Your task to perform on an android device: Open my contact list Image 0: 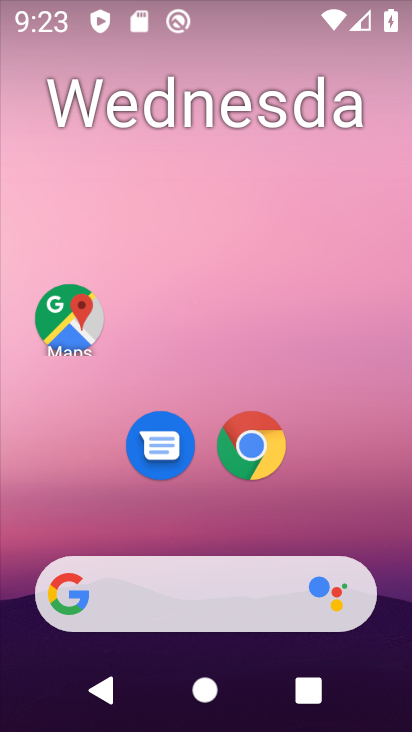
Step 0: drag from (202, 451) to (294, 67)
Your task to perform on an android device: Open my contact list Image 1: 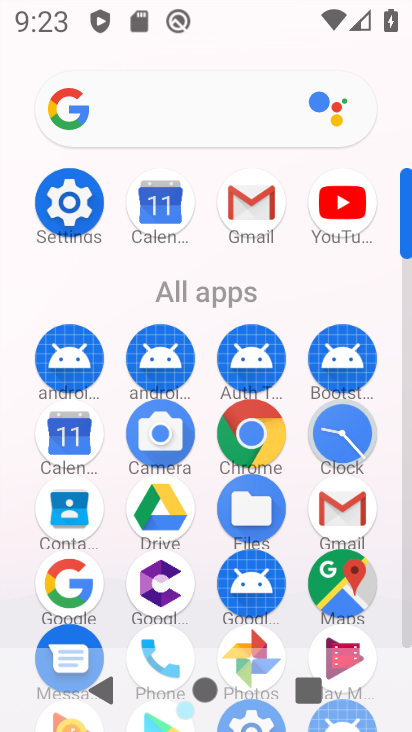
Step 1: click (71, 521)
Your task to perform on an android device: Open my contact list Image 2: 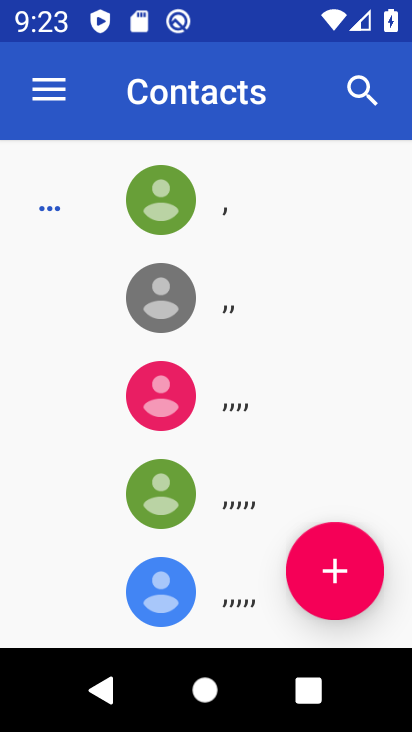
Step 2: task complete